Your task to perform on an android device: turn off priority inbox in the gmail app Image 0: 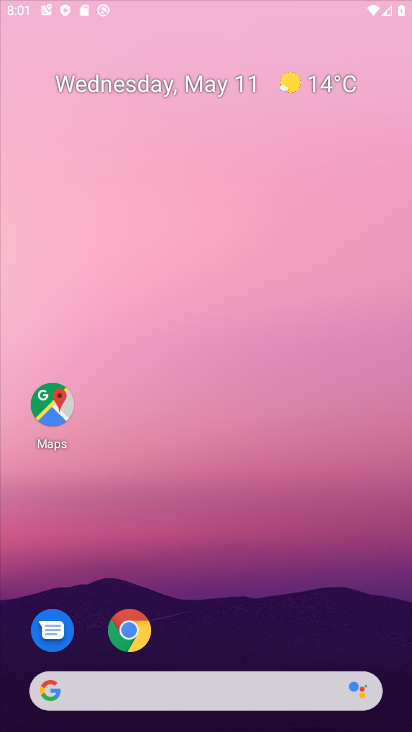
Step 0: drag from (138, 64) to (246, 96)
Your task to perform on an android device: turn off priority inbox in the gmail app Image 1: 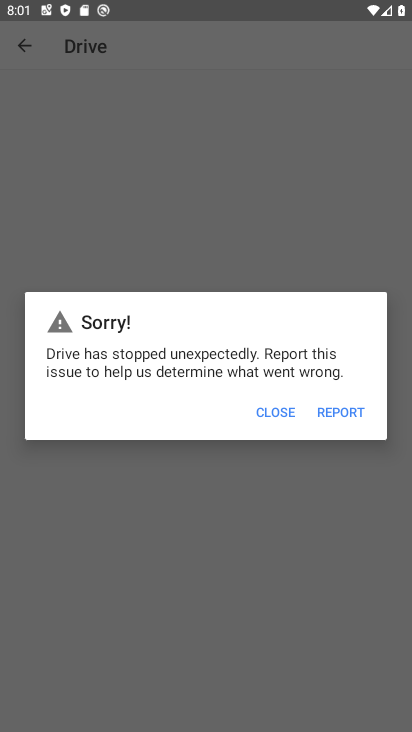
Step 1: click (284, 417)
Your task to perform on an android device: turn off priority inbox in the gmail app Image 2: 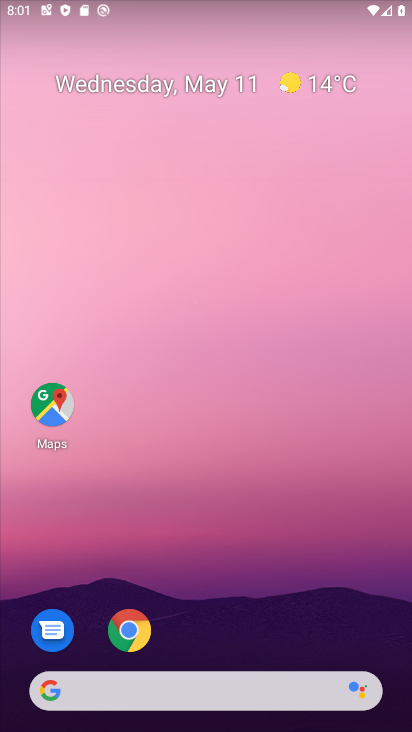
Step 2: drag from (191, 656) to (148, 135)
Your task to perform on an android device: turn off priority inbox in the gmail app Image 3: 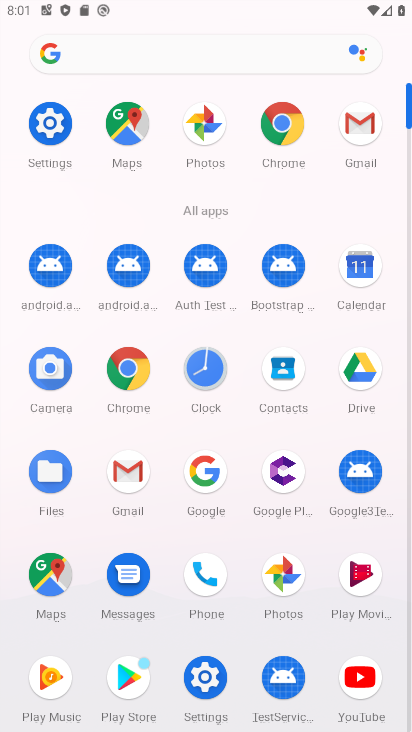
Step 3: click (194, 362)
Your task to perform on an android device: turn off priority inbox in the gmail app Image 4: 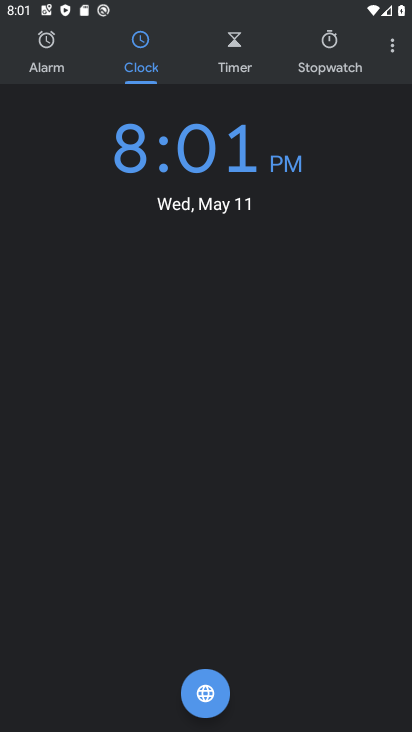
Step 4: press home button
Your task to perform on an android device: turn off priority inbox in the gmail app Image 5: 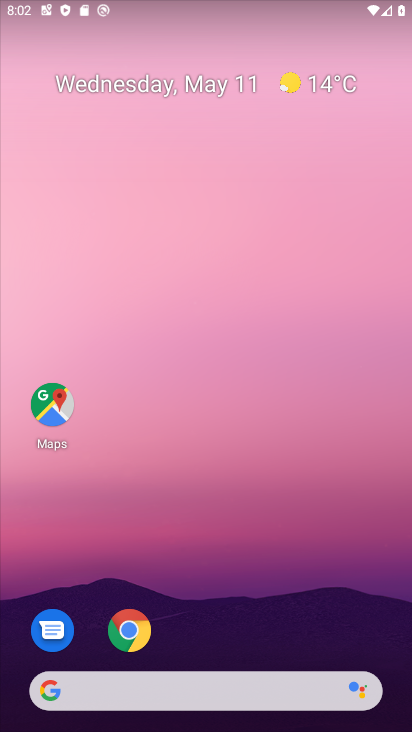
Step 5: drag from (190, 639) to (170, 93)
Your task to perform on an android device: turn off priority inbox in the gmail app Image 6: 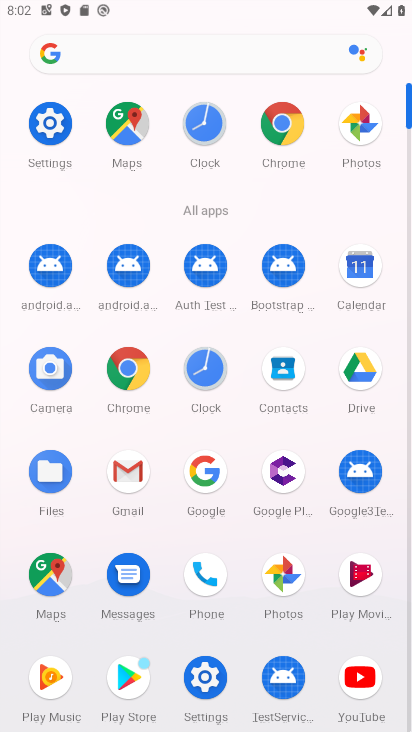
Step 6: click (129, 481)
Your task to perform on an android device: turn off priority inbox in the gmail app Image 7: 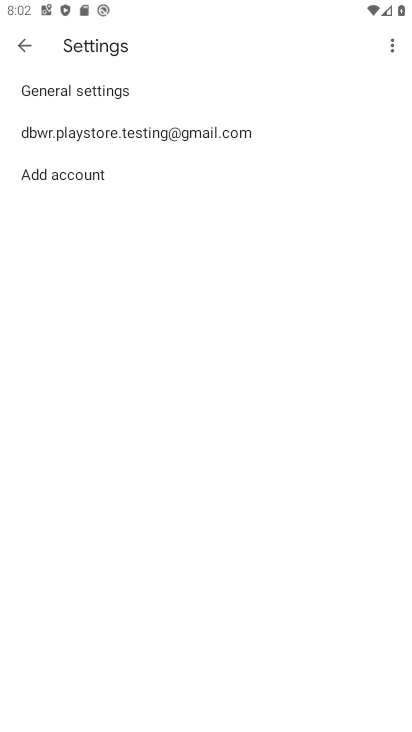
Step 7: click (80, 125)
Your task to perform on an android device: turn off priority inbox in the gmail app Image 8: 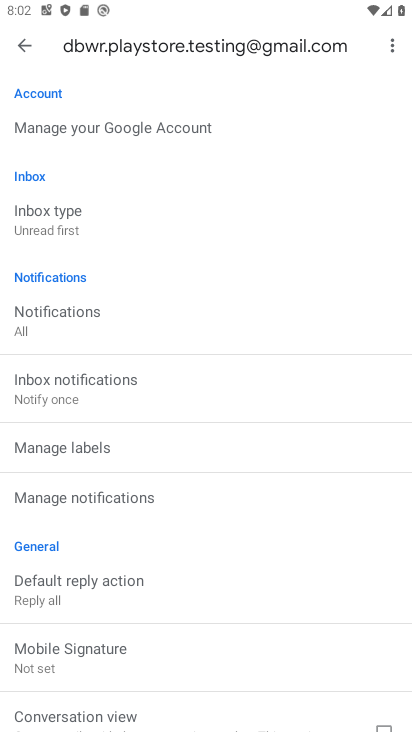
Step 8: drag from (93, 436) to (100, 117)
Your task to perform on an android device: turn off priority inbox in the gmail app Image 9: 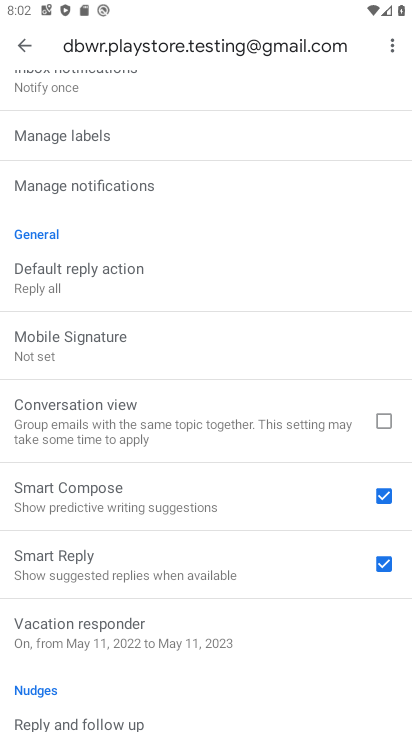
Step 9: drag from (65, 149) to (82, 399)
Your task to perform on an android device: turn off priority inbox in the gmail app Image 10: 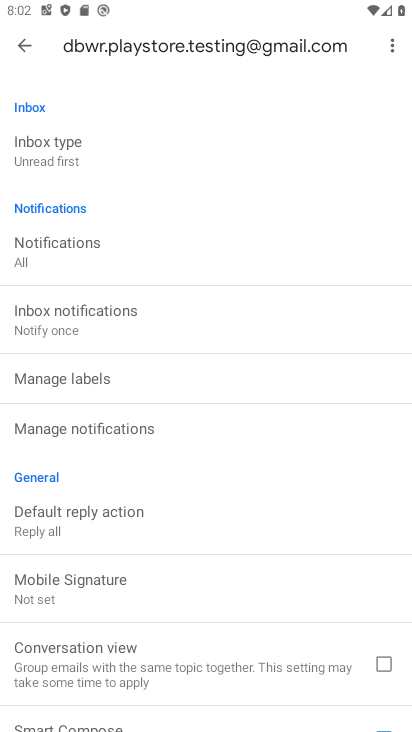
Step 10: click (58, 172)
Your task to perform on an android device: turn off priority inbox in the gmail app Image 11: 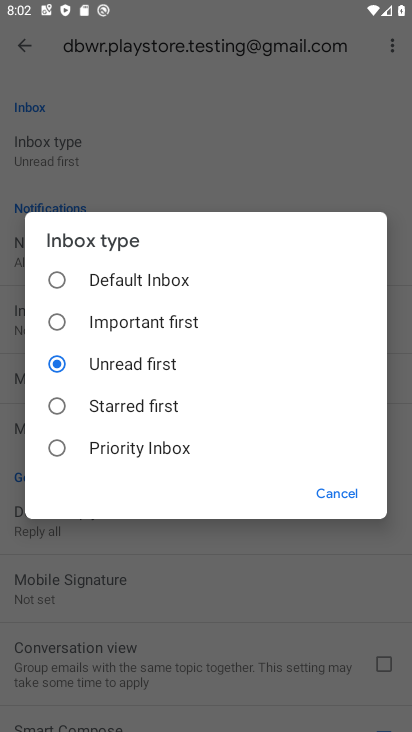
Step 11: task complete